Your task to perform on an android device: change keyboard looks Image 0: 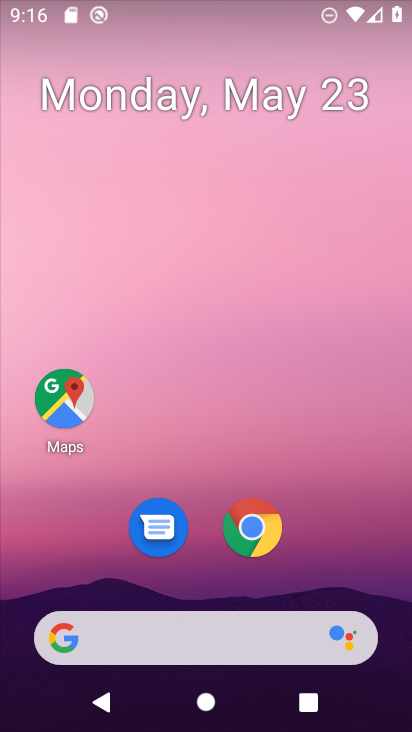
Step 0: drag from (233, 439) to (262, 27)
Your task to perform on an android device: change keyboard looks Image 1: 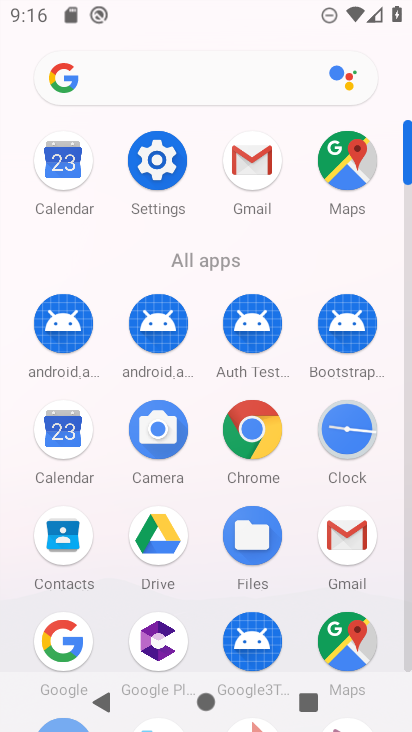
Step 1: click (159, 166)
Your task to perform on an android device: change keyboard looks Image 2: 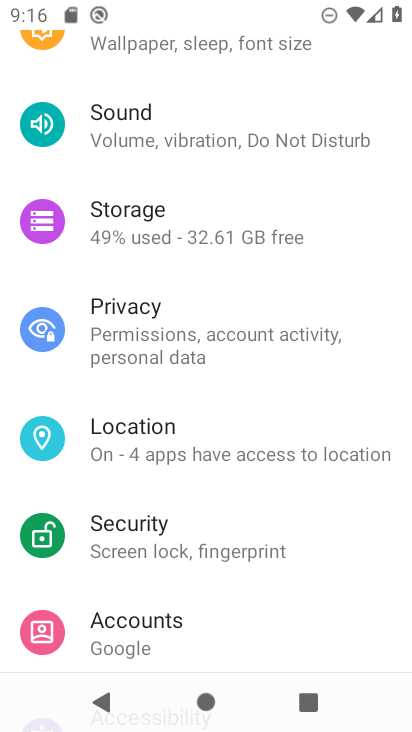
Step 2: drag from (264, 559) to (267, 59)
Your task to perform on an android device: change keyboard looks Image 3: 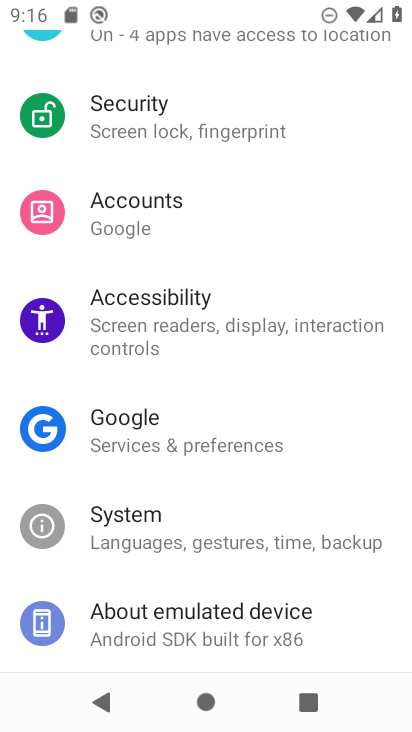
Step 3: click (208, 531)
Your task to perform on an android device: change keyboard looks Image 4: 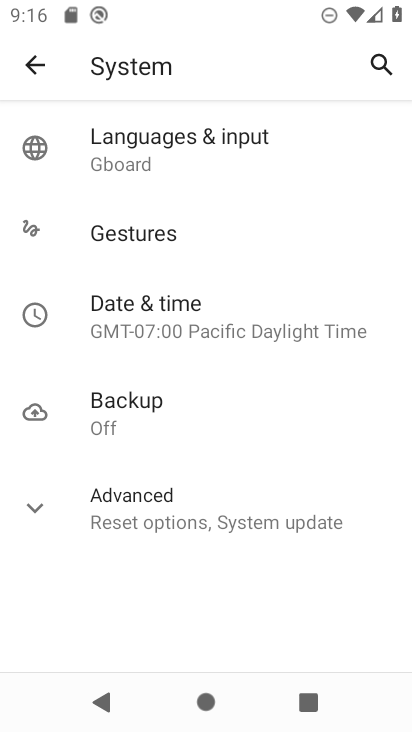
Step 4: click (168, 153)
Your task to perform on an android device: change keyboard looks Image 5: 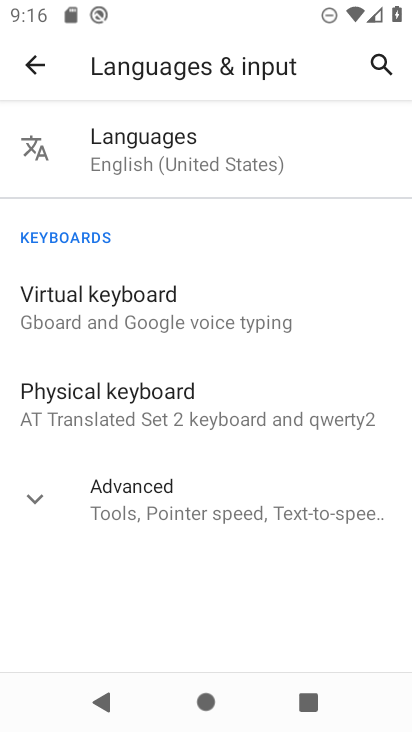
Step 5: click (167, 303)
Your task to perform on an android device: change keyboard looks Image 6: 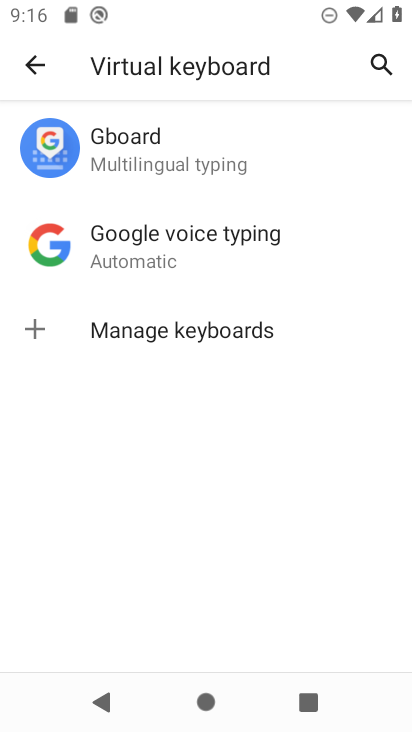
Step 6: click (162, 161)
Your task to perform on an android device: change keyboard looks Image 7: 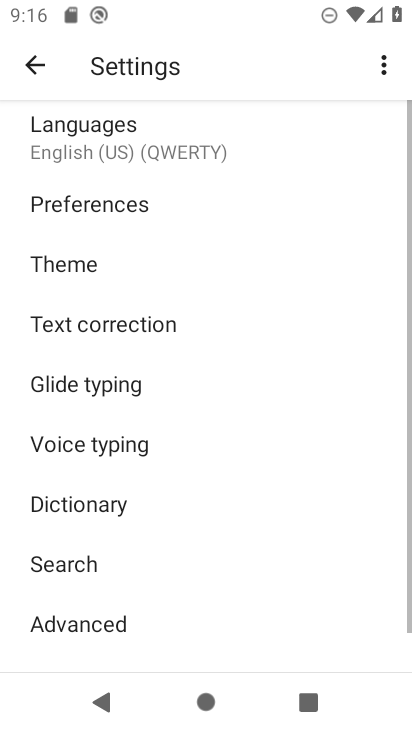
Step 7: click (133, 265)
Your task to perform on an android device: change keyboard looks Image 8: 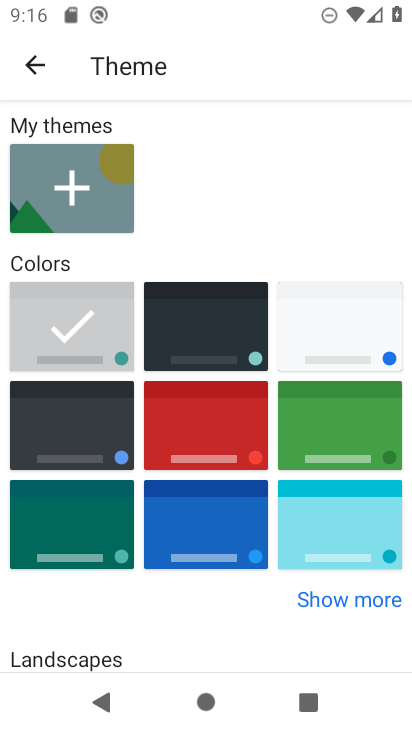
Step 8: click (185, 341)
Your task to perform on an android device: change keyboard looks Image 9: 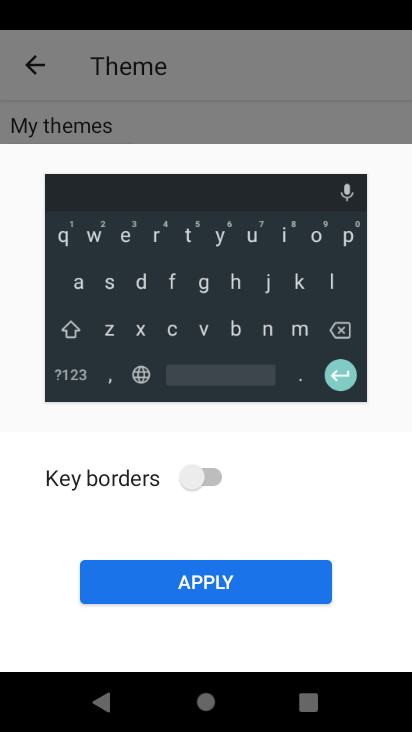
Step 9: click (211, 587)
Your task to perform on an android device: change keyboard looks Image 10: 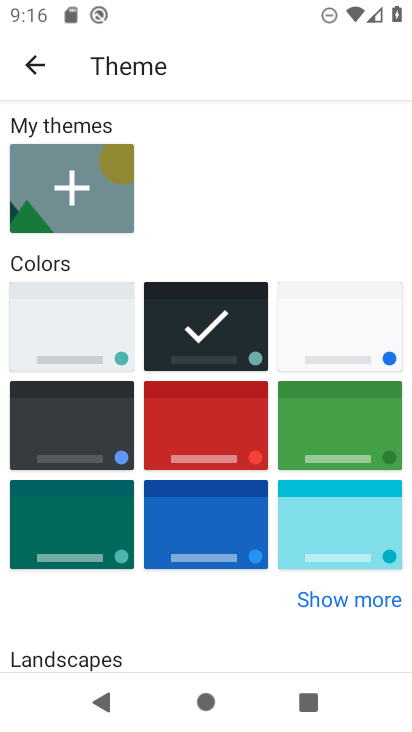
Step 10: task complete